Your task to perform on an android device: Go to internet settings Image 0: 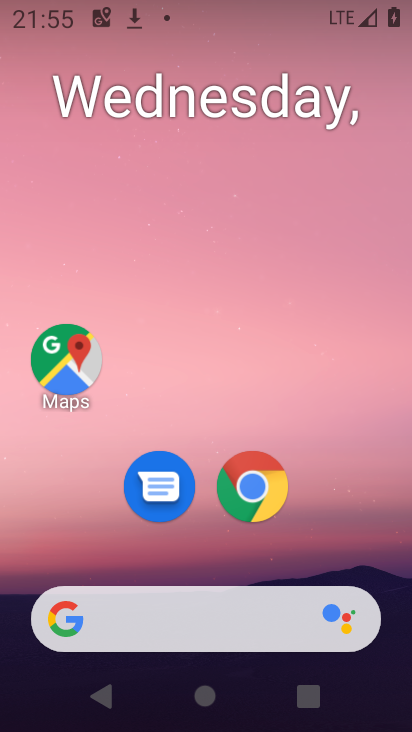
Step 0: drag from (195, 539) to (301, 10)
Your task to perform on an android device: Go to internet settings Image 1: 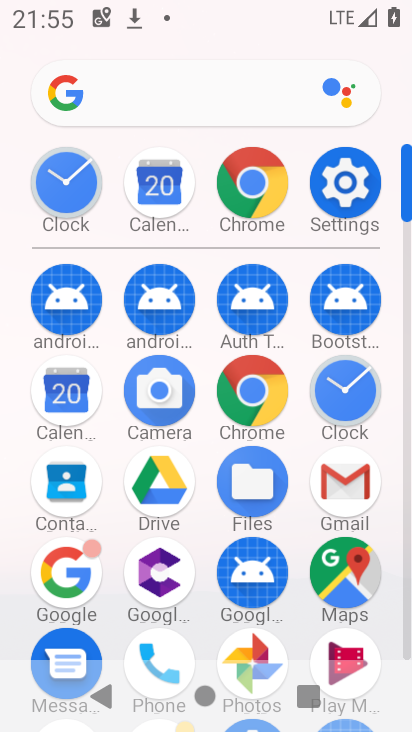
Step 1: click (341, 189)
Your task to perform on an android device: Go to internet settings Image 2: 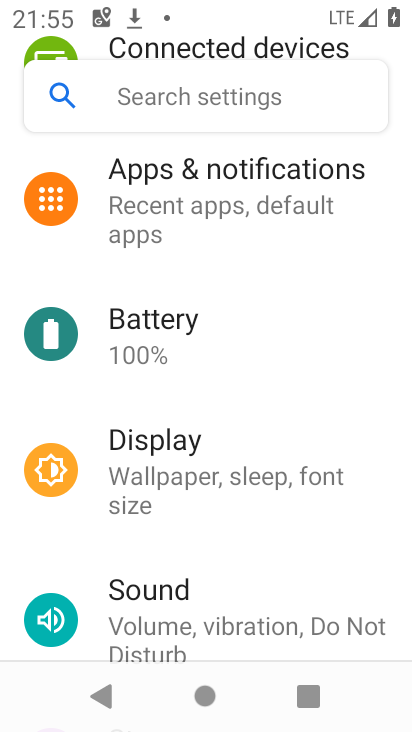
Step 2: drag from (227, 233) to (196, 642)
Your task to perform on an android device: Go to internet settings Image 3: 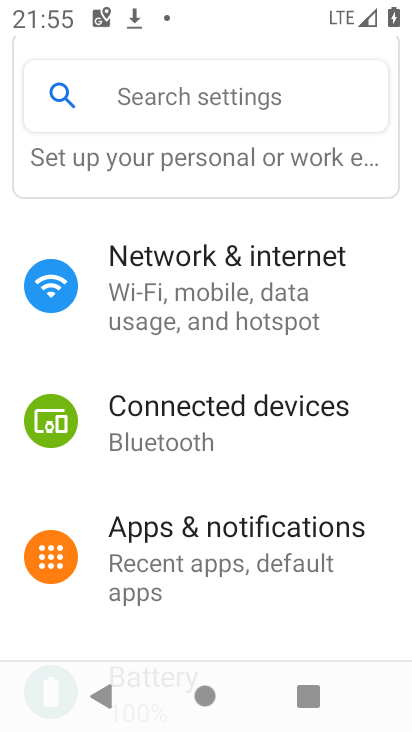
Step 3: click (189, 275)
Your task to perform on an android device: Go to internet settings Image 4: 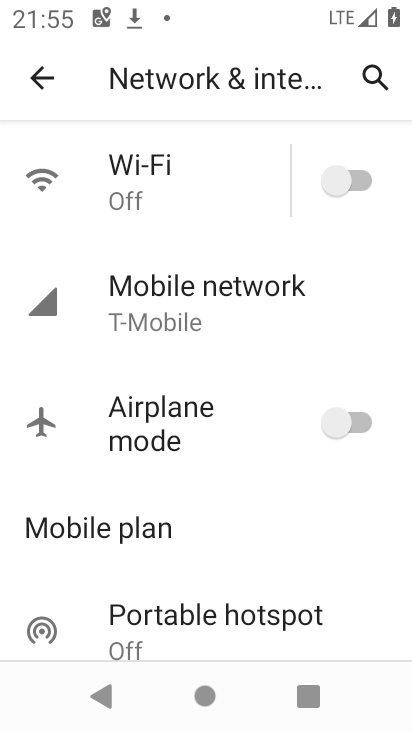
Step 4: task complete